Your task to perform on an android device: toggle sleep mode Image 0: 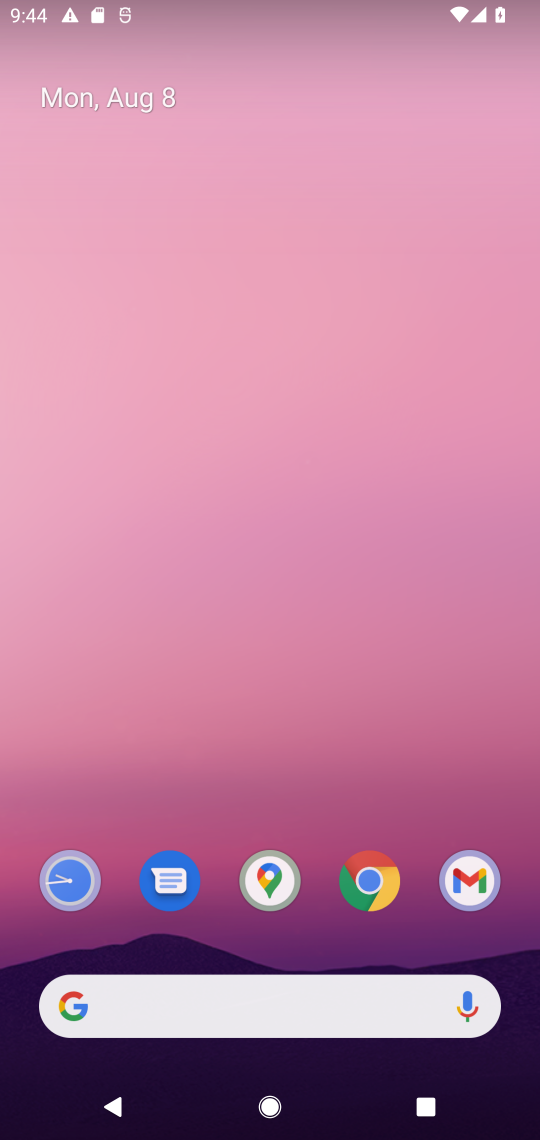
Step 0: press home button
Your task to perform on an android device: toggle sleep mode Image 1: 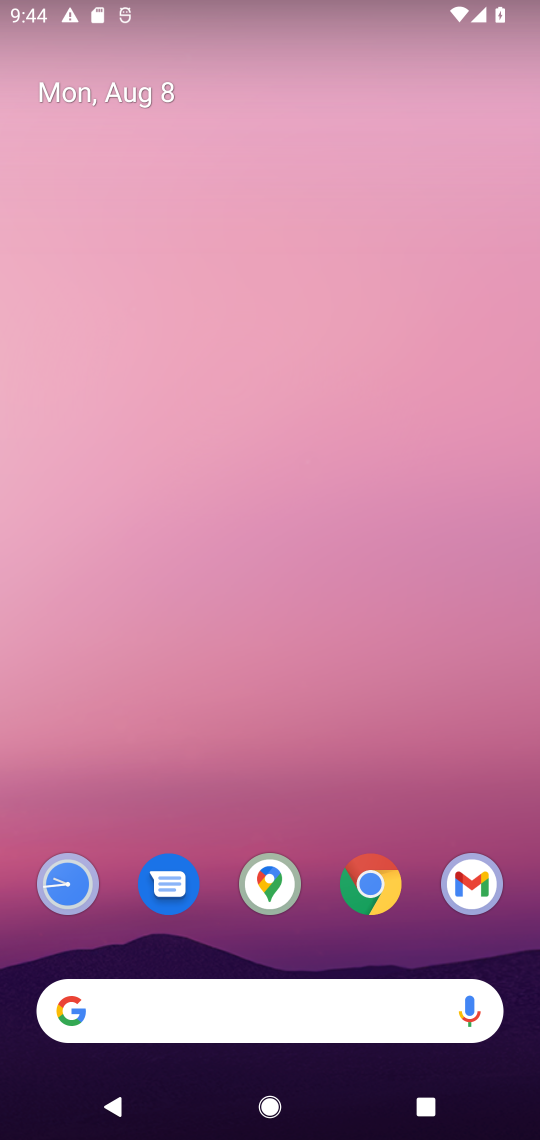
Step 1: drag from (288, 785) to (233, 38)
Your task to perform on an android device: toggle sleep mode Image 2: 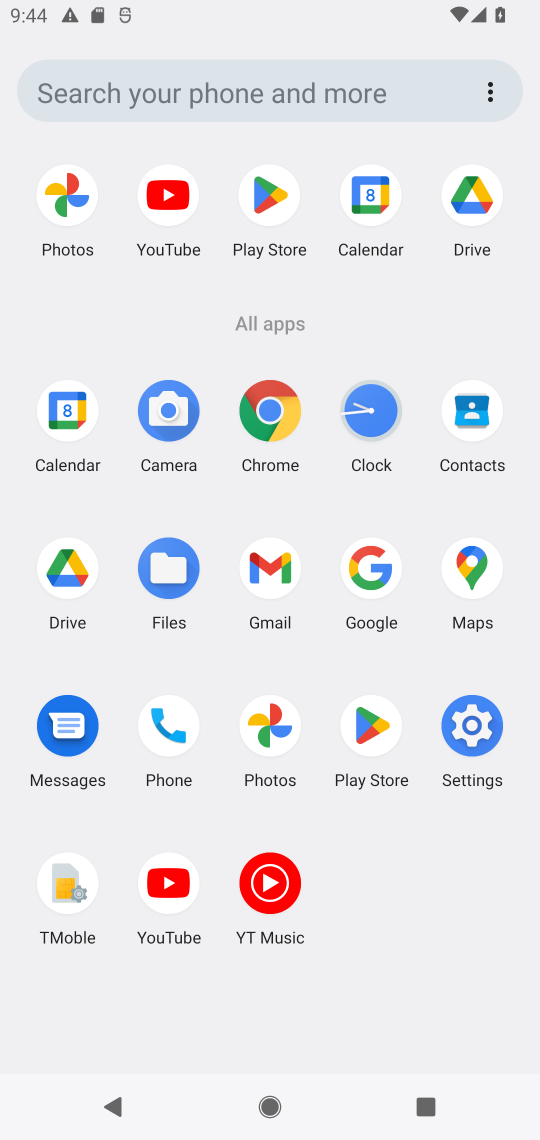
Step 2: click (472, 717)
Your task to perform on an android device: toggle sleep mode Image 3: 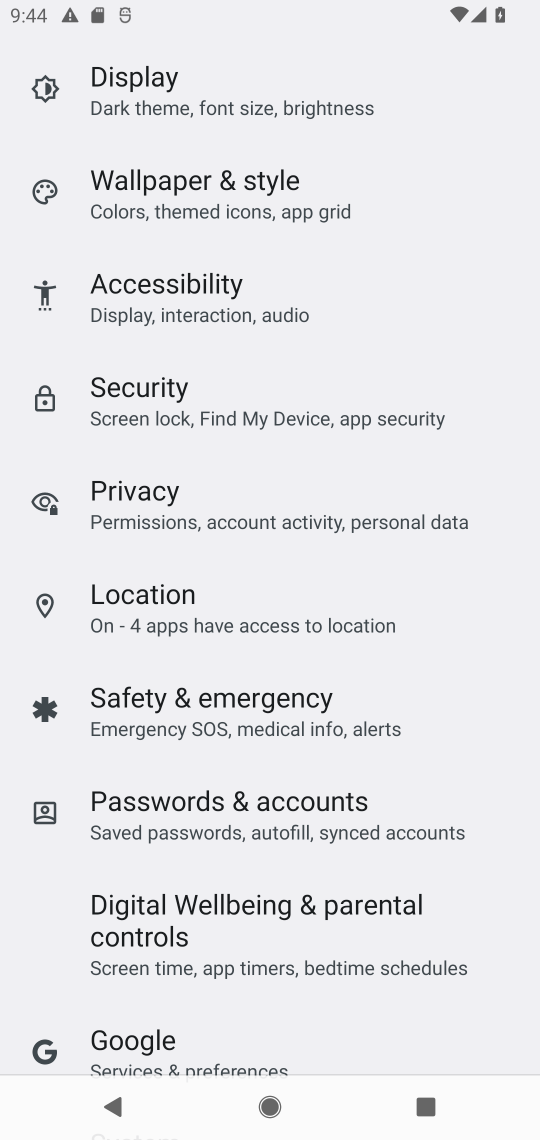
Step 3: click (141, 82)
Your task to perform on an android device: toggle sleep mode Image 4: 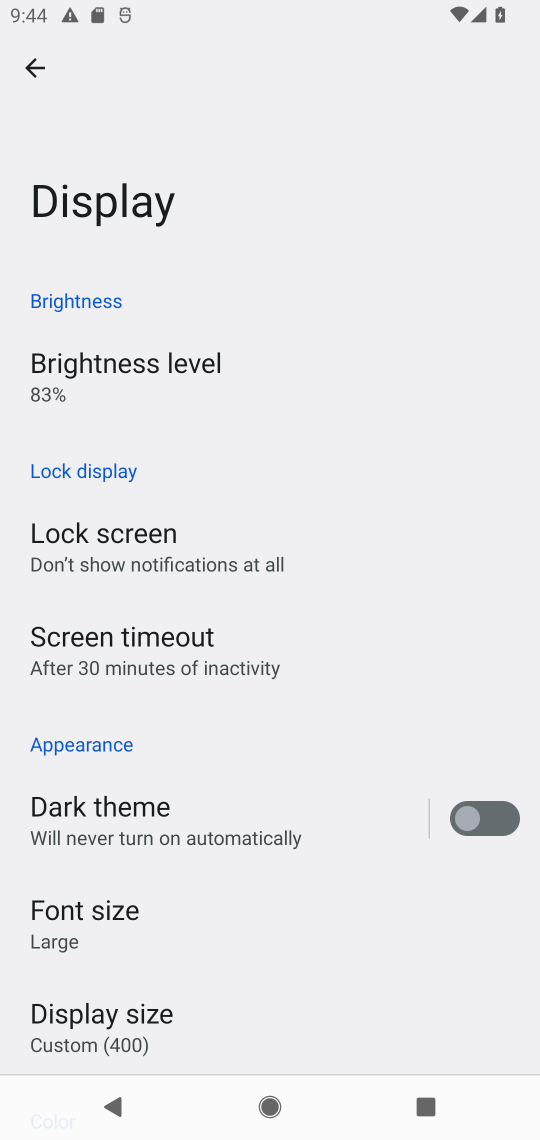
Step 4: task complete